Your task to perform on an android device: turn off notifications in google photos Image 0: 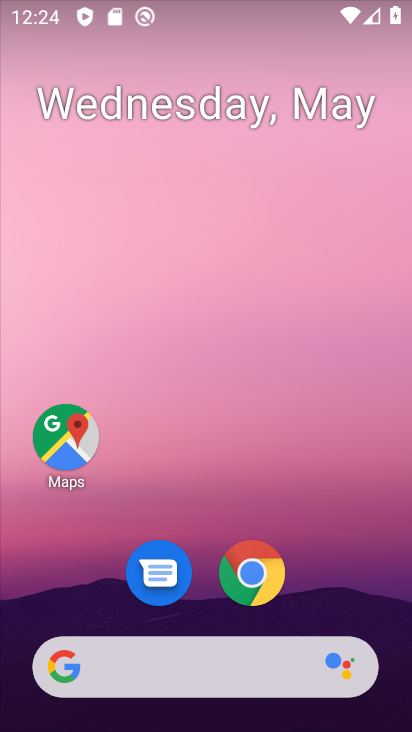
Step 0: press home button
Your task to perform on an android device: turn off notifications in google photos Image 1: 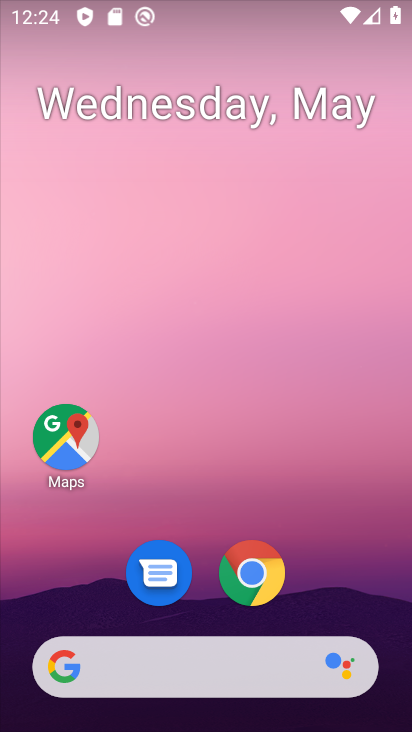
Step 1: drag from (336, 596) to (400, 156)
Your task to perform on an android device: turn off notifications in google photos Image 2: 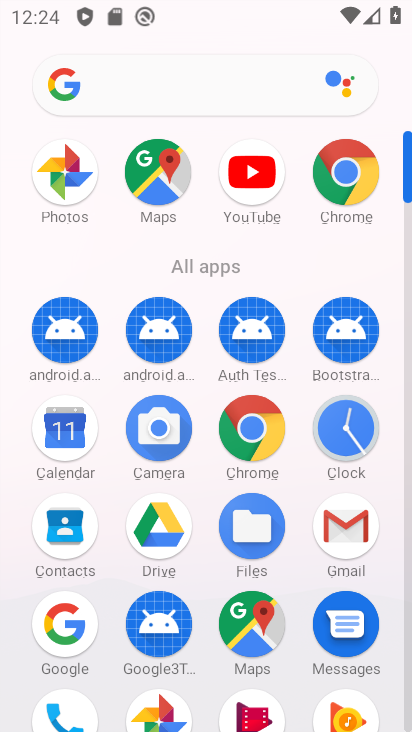
Step 2: click (179, 706)
Your task to perform on an android device: turn off notifications in google photos Image 3: 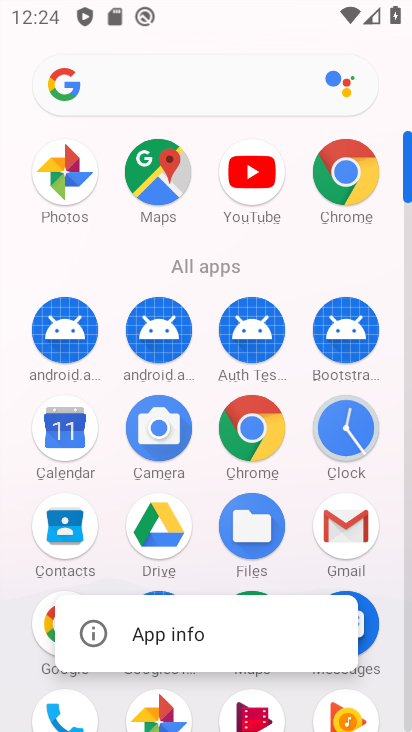
Step 3: click (175, 640)
Your task to perform on an android device: turn off notifications in google photos Image 4: 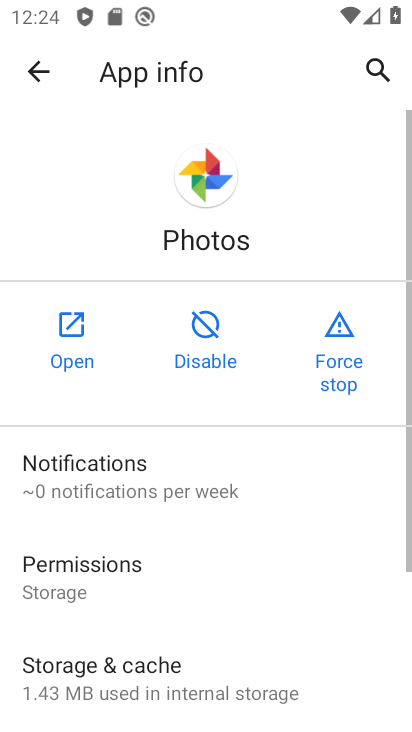
Step 4: click (164, 479)
Your task to perform on an android device: turn off notifications in google photos Image 5: 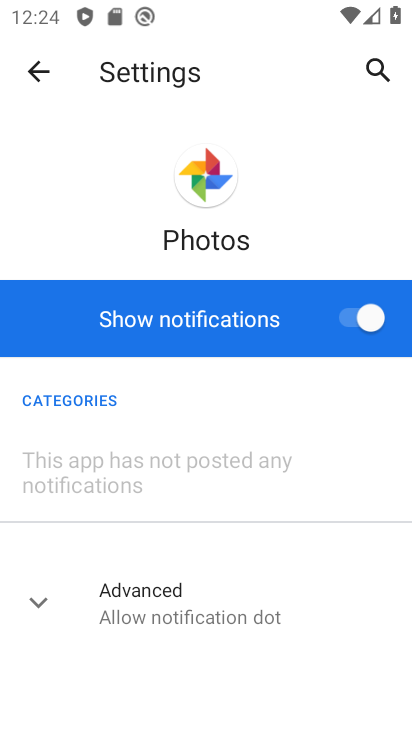
Step 5: click (350, 303)
Your task to perform on an android device: turn off notifications in google photos Image 6: 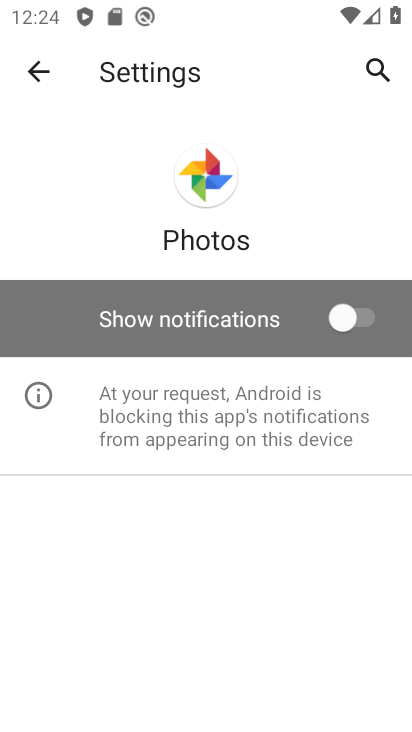
Step 6: task complete